Your task to perform on an android device: open app "Skype" (install if not already installed), go to login, and select forgot password Image 0: 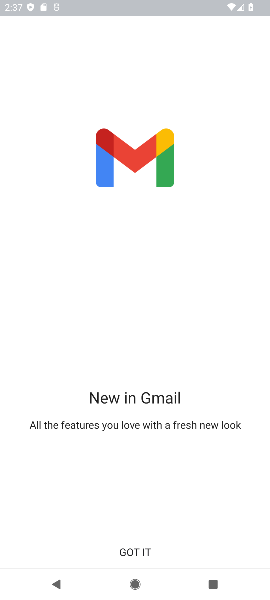
Step 0: press home button
Your task to perform on an android device: open app "Skype" (install if not already installed), go to login, and select forgot password Image 1: 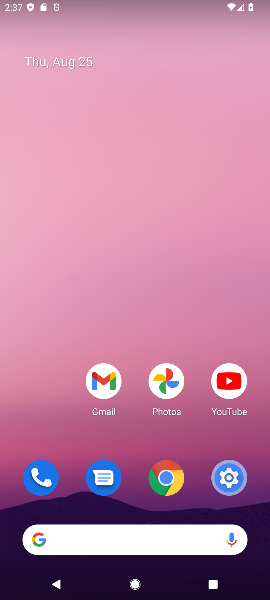
Step 1: drag from (167, 533) to (201, 107)
Your task to perform on an android device: open app "Skype" (install if not already installed), go to login, and select forgot password Image 2: 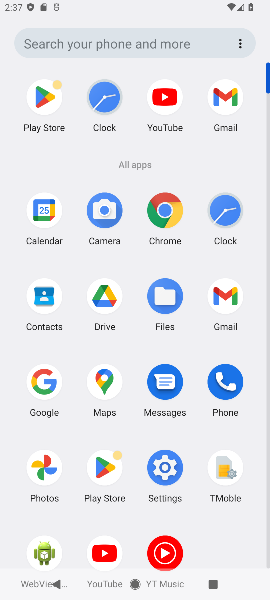
Step 2: click (104, 471)
Your task to perform on an android device: open app "Skype" (install if not already installed), go to login, and select forgot password Image 3: 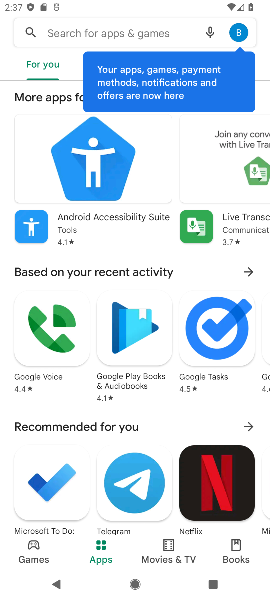
Step 3: click (102, 28)
Your task to perform on an android device: open app "Skype" (install if not already installed), go to login, and select forgot password Image 4: 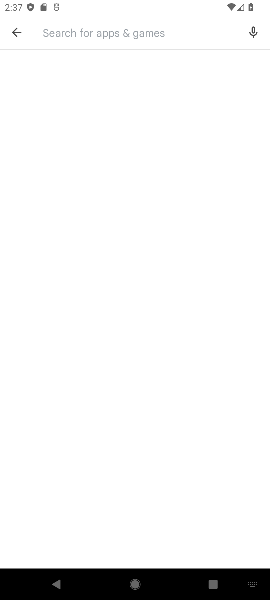
Step 4: type "Skype"
Your task to perform on an android device: open app "Skype" (install if not already installed), go to login, and select forgot password Image 5: 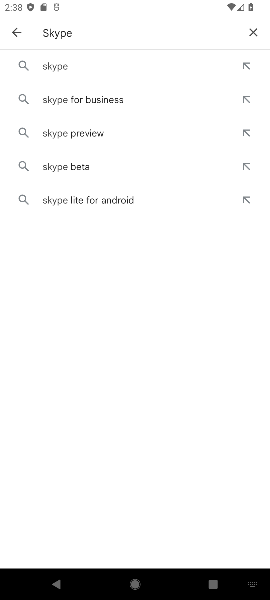
Step 5: click (50, 71)
Your task to perform on an android device: open app "Skype" (install if not already installed), go to login, and select forgot password Image 6: 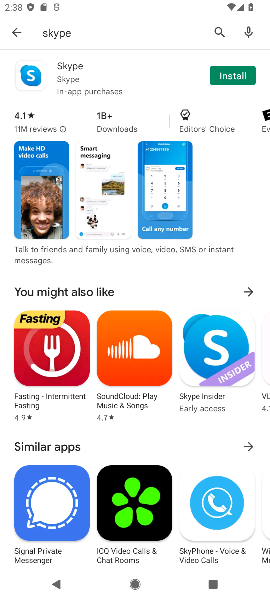
Step 6: click (222, 77)
Your task to perform on an android device: open app "Skype" (install if not already installed), go to login, and select forgot password Image 7: 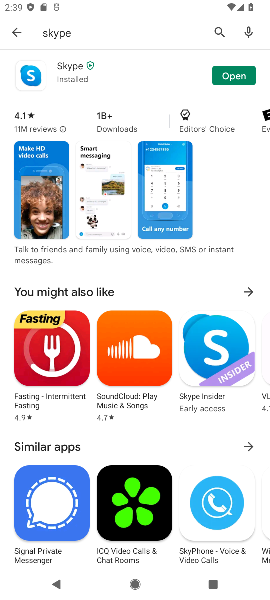
Step 7: click (222, 79)
Your task to perform on an android device: open app "Skype" (install if not already installed), go to login, and select forgot password Image 8: 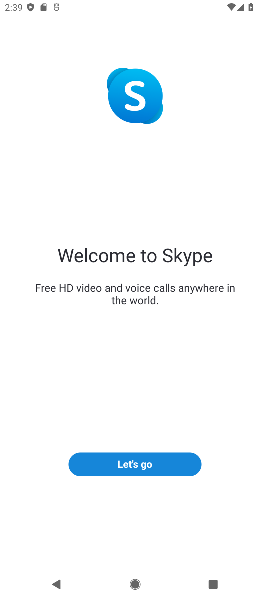
Step 8: click (143, 458)
Your task to perform on an android device: open app "Skype" (install if not already installed), go to login, and select forgot password Image 9: 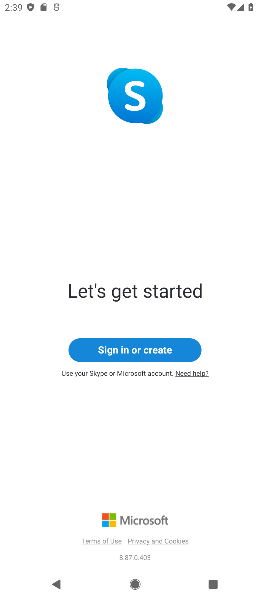
Step 9: click (147, 348)
Your task to perform on an android device: open app "Skype" (install if not already installed), go to login, and select forgot password Image 10: 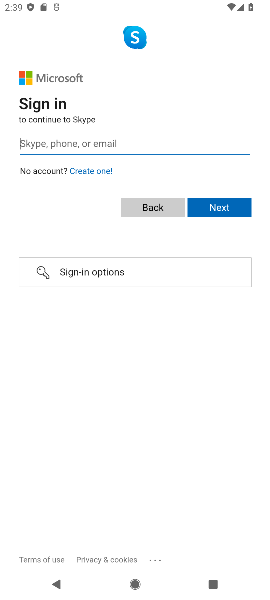
Step 10: click (121, 142)
Your task to perform on an android device: open app "Skype" (install if not already installed), go to login, and select forgot password Image 11: 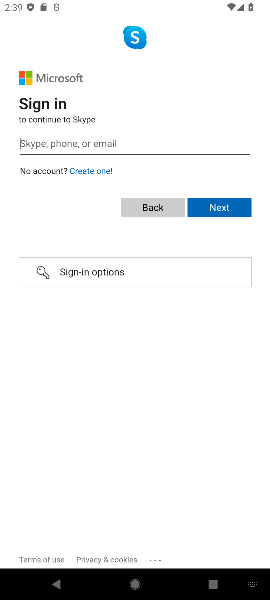
Step 11: task complete